Your task to perform on an android device: set an alarm Image 0: 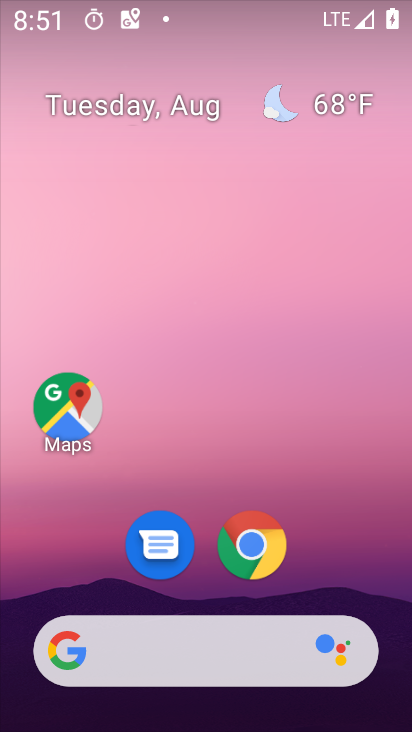
Step 0: drag from (219, 616) to (315, 7)
Your task to perform on an android device: set an alarm Image 1: 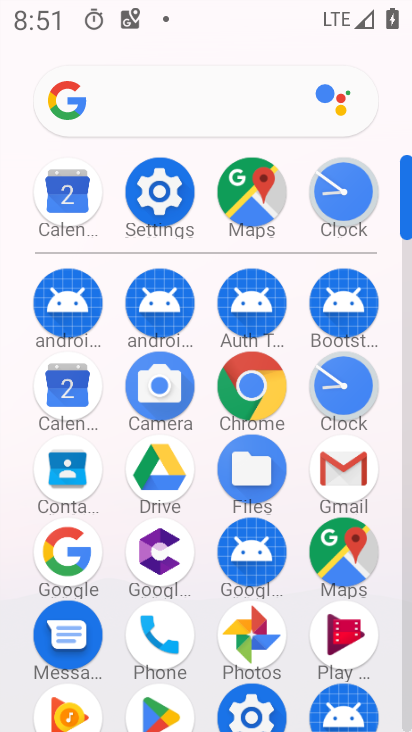
Step 1: click (349, 195)
Your task to perform on an android device: set an alarm Image 2: 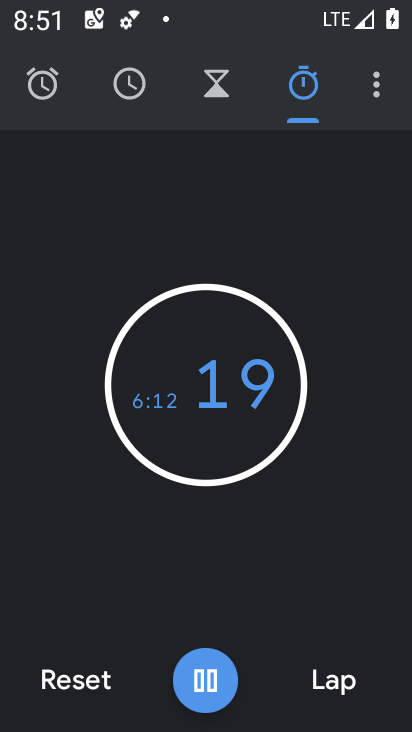
Step 2: click (50, 96)
Your task to perform on an android device: set an alarm Image 3: 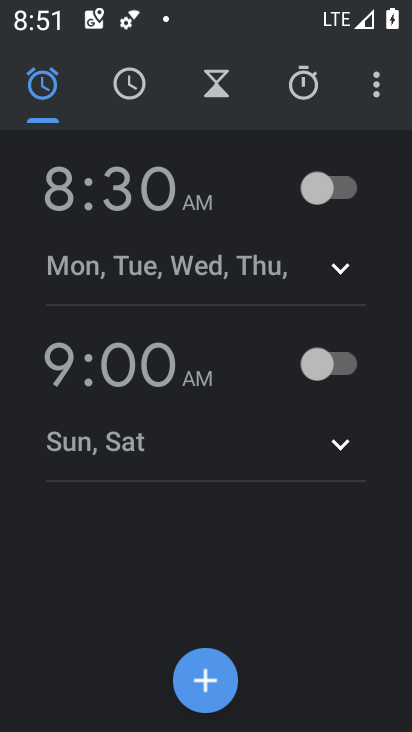
Step 3: click (210, 696)
Your task to perform on an android device: set an alarm Image 4: 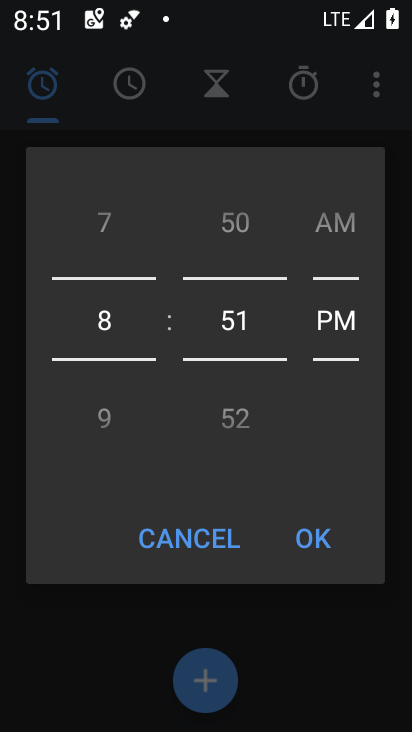
Step 4: drag from (109, 376) to (105, 238)
Your task to perform on an android device: set an alarm Image 5: 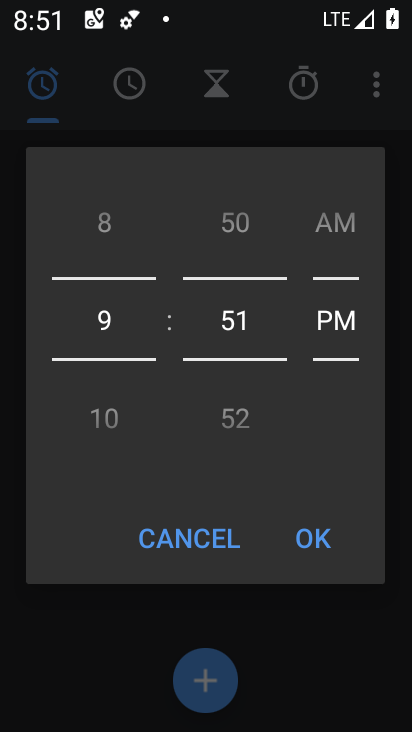
Step 5: drag from (243, 422) to (251, 485)
Your task to perform on an android device: set an alarm Image 6: 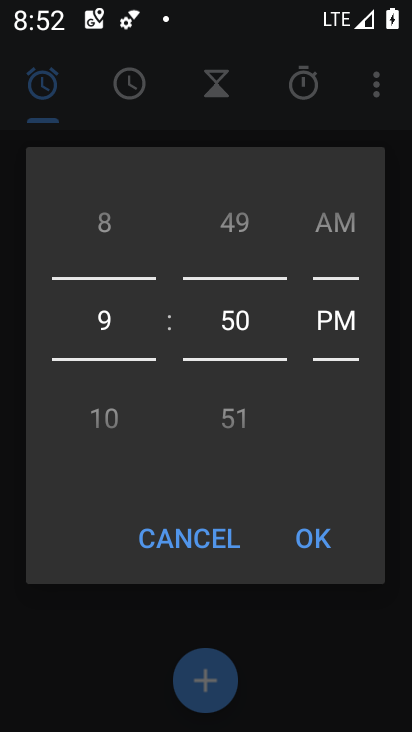
Step 6: click (311, 537)
Your task to perform on an android device: set an alarm Image 7: 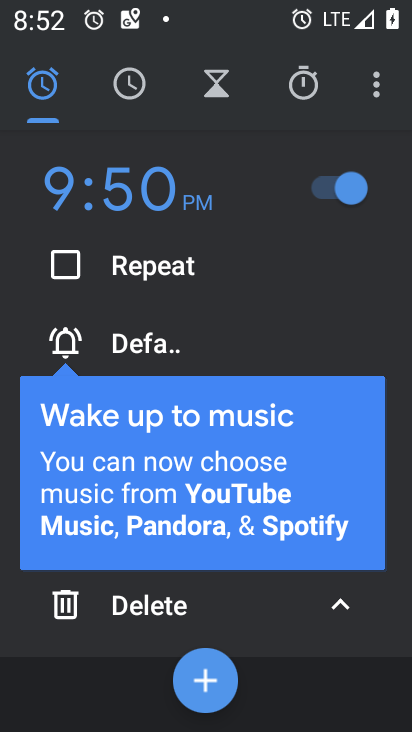
Step 7: task complete